Your task to perform on an android device: turn notification dots off Image 0: 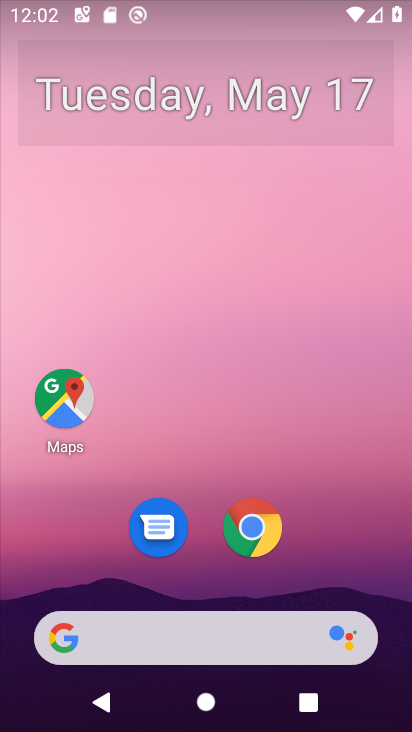
Step 0: drag from (315, 530) to (326, 147)
Your task to perform on an android device: turn notification dots off Image 1: 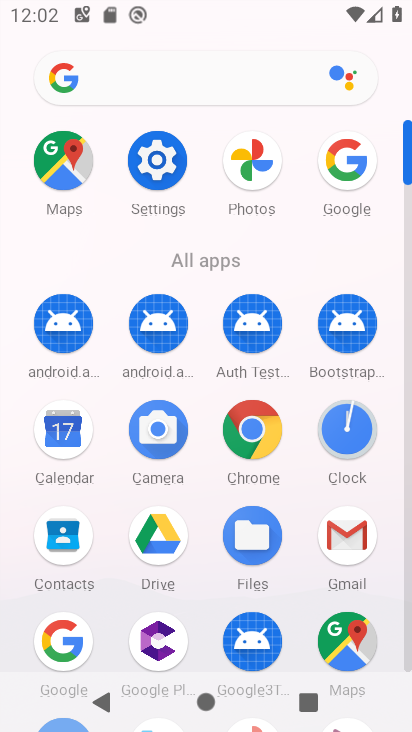
Step 1: click (162, 161)
Your task to perform on an android device: turn notification dots off Image 2: 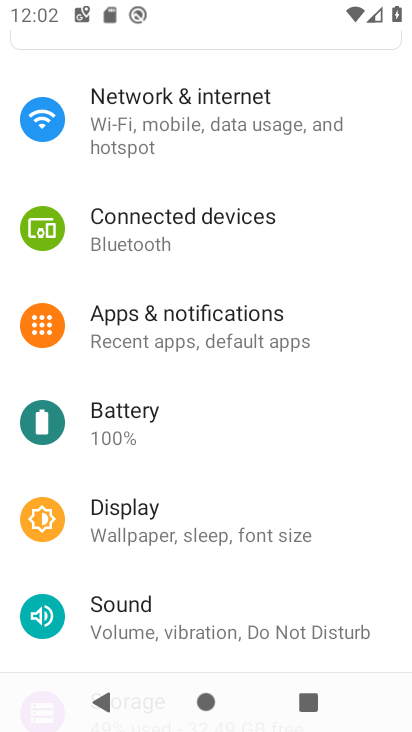
Step 2: click (237, 343)
Your task to perform on an android device: turn notification dots off Image 3: 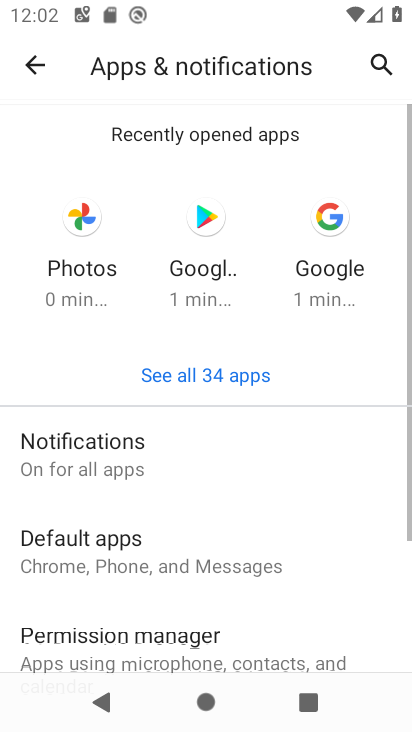
Step 3: drag from (259, 584) to (265, 177)
Your task to perform on an android device: turn notification dots off Image 4: 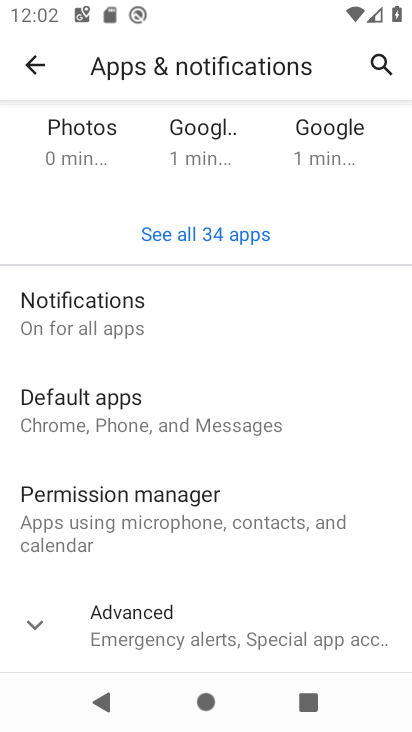
Step 4: click (39, 633)
Your task to perform on an android device: turn notification dots off Image 5: 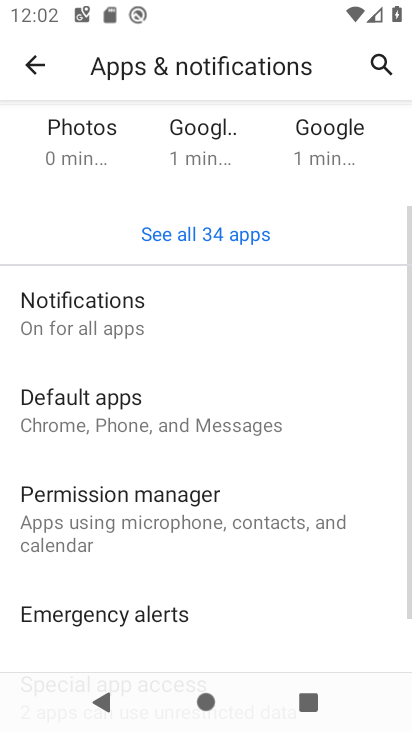
Step 5: click (89, 300)
Your task to perform on an android device: turn notification dots off Image 6: 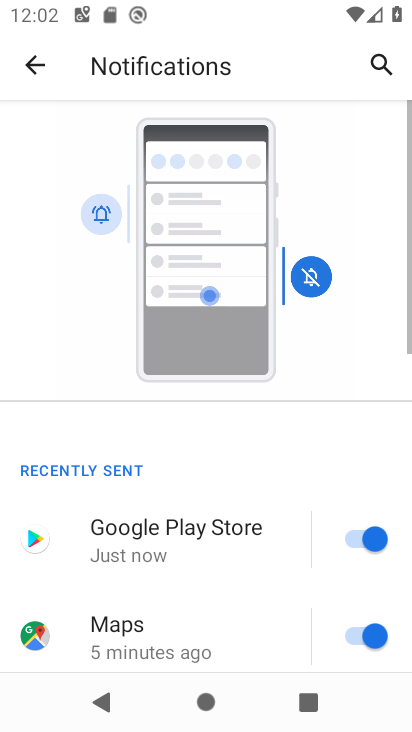
Step 6: drag from (242, 523) to (272, 115)
Your task to perform on an android device: turn notification dots off Image 7: 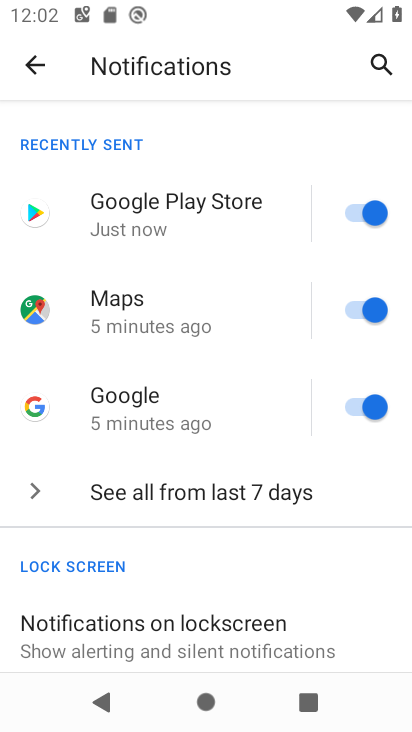
Step 7: drag from (163, 584) to (181, 210)
Your task to perform on an android device: turn notification dots off Image 8: 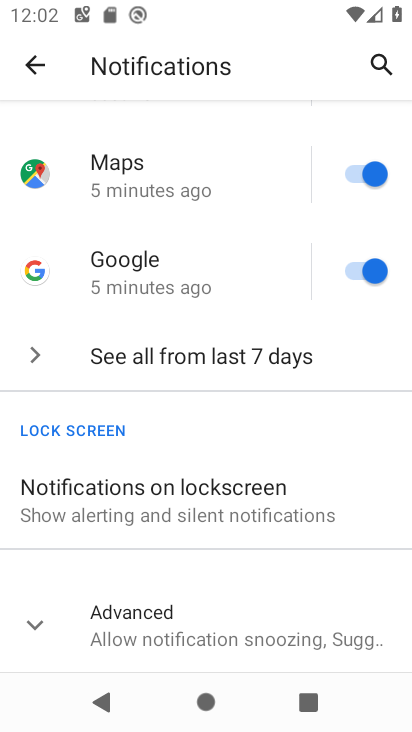
Step 8: click (31, 632)
Your task to perform on an android device: turn notification dots off Image 9: 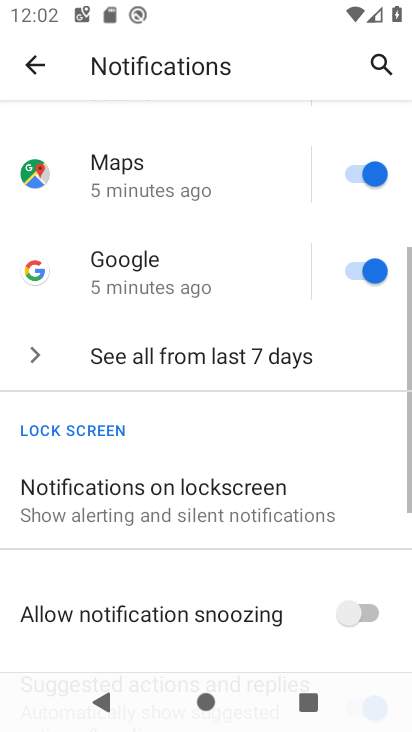
Step 9: drag from (165, 653) to (221, 186)
Your task to perform on an android device: turn notification dots off Image 10: 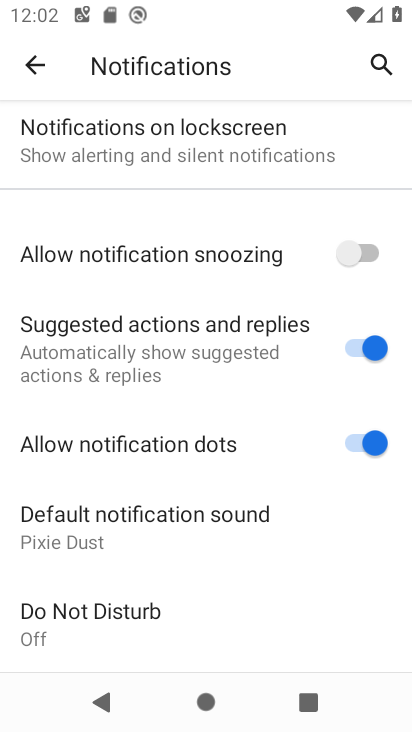
Step 10: click (375, 448)
Your task to perform on an android device: turn notification dots off Image 11: 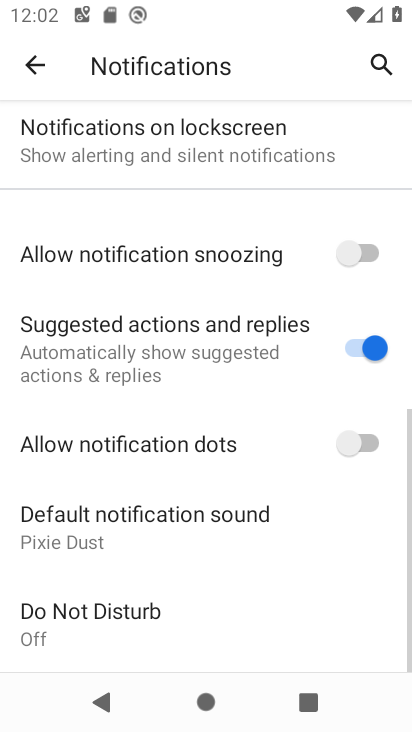
Step 11: task complete